Your task to perform on an android device: toggle airplane mode Image 0: 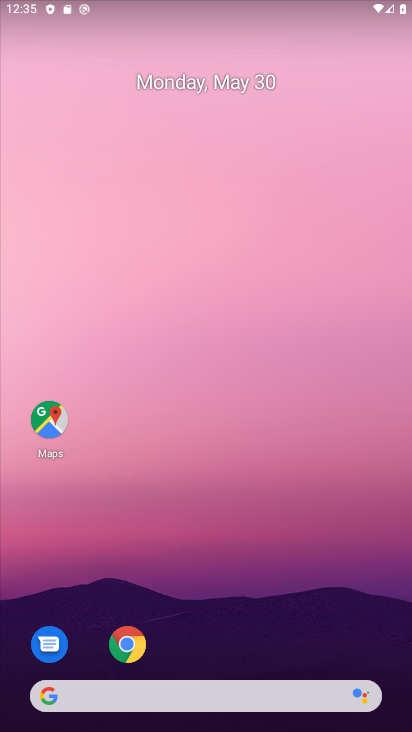
Step 0: drag from (197, 580) to (205, 141)
Your task to perform on an android device: toggle airplane mode Image 1: 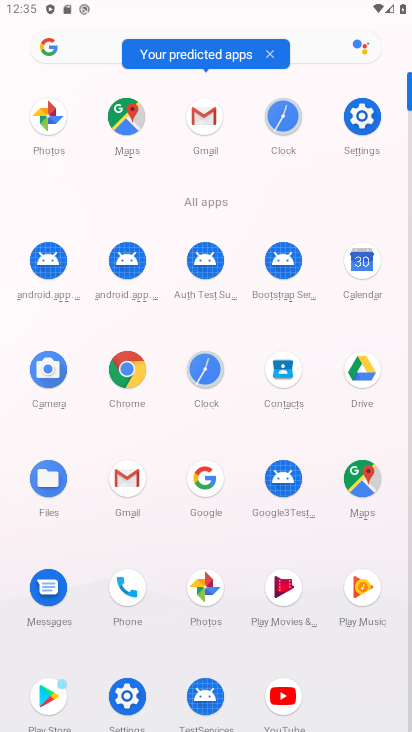
Step 1: click (376, 100)
Your task to perform on an android device: toggle airplane mode Image 2: 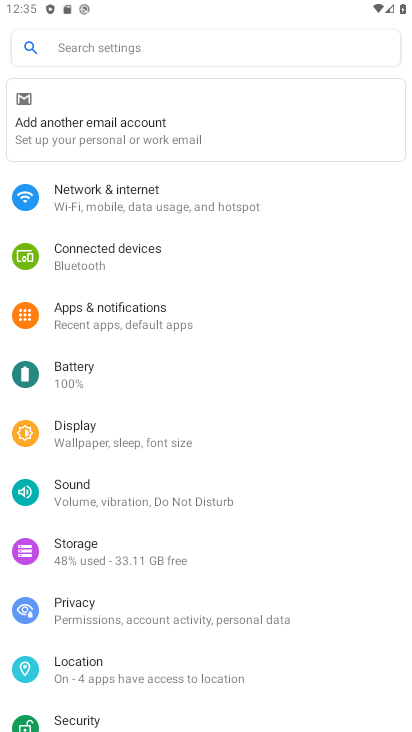
Step 2: click (159, 217)
Your task to perform on an android device: toggle airplane mode Image 3: 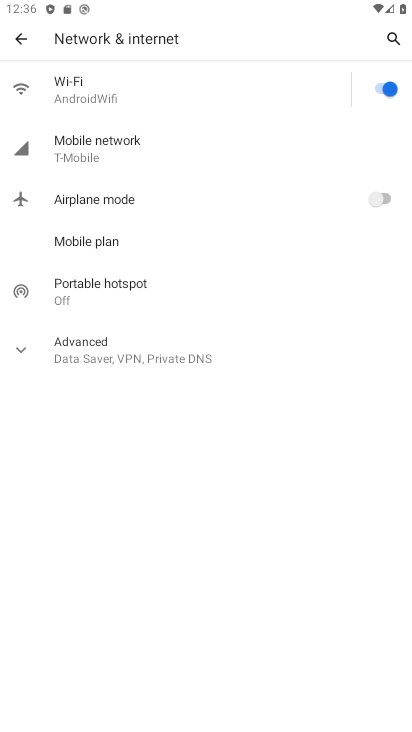
Step 3: click (383, 198)
Your task to perform on an android device: toggle airplane mode Image 4: 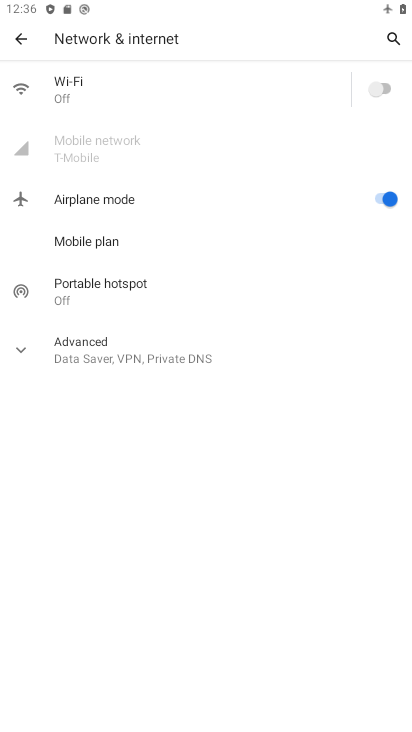
Step 4: task complete